Your task to perform on an android device: Go to calendar. Show me events next week Image 0: 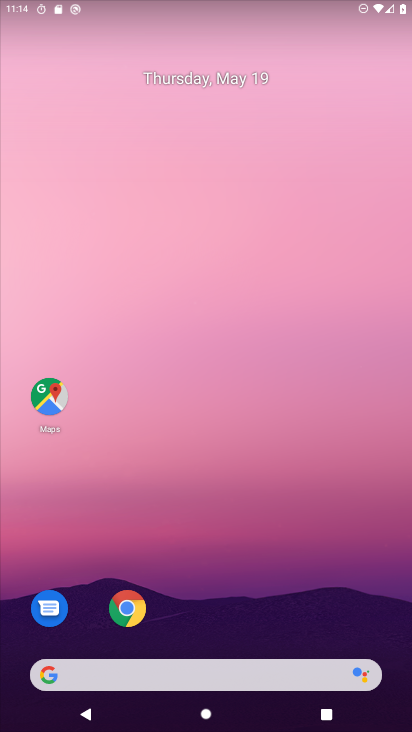
Step 0: drag from (400, 663) to (383, 379)
Your task to perform on an android device: Go to calendar. Show me events next week Image 1: 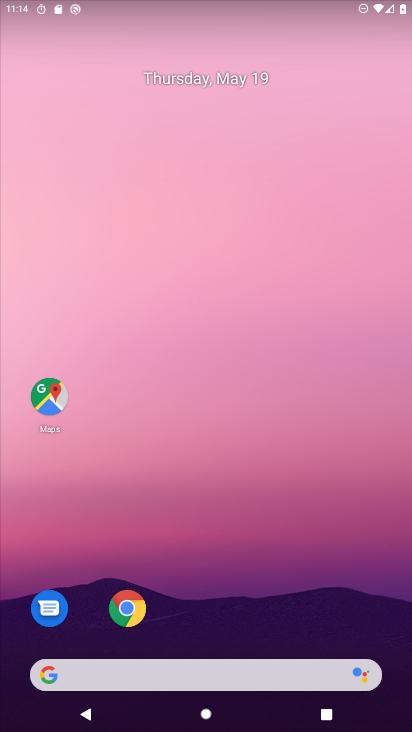
Step 1: drag from (400, 698) to (375, 1)
Your task to perform on an android device: Go to calendar. Show me events next week Image 2: 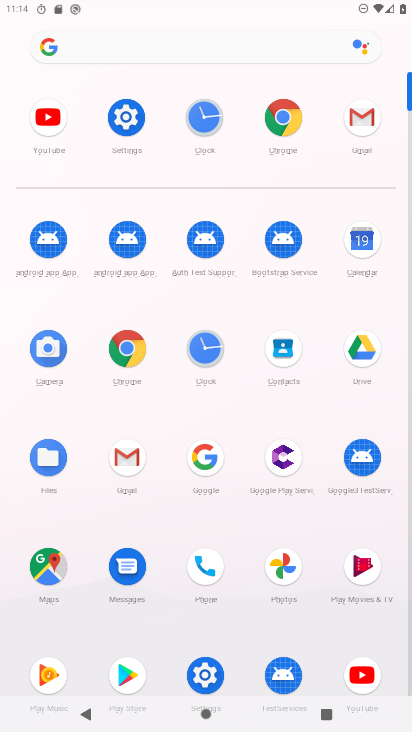
Step 2: click (353, 242)
Your task to perform on an android device: Go to calendar. Show me events next week Image 3: 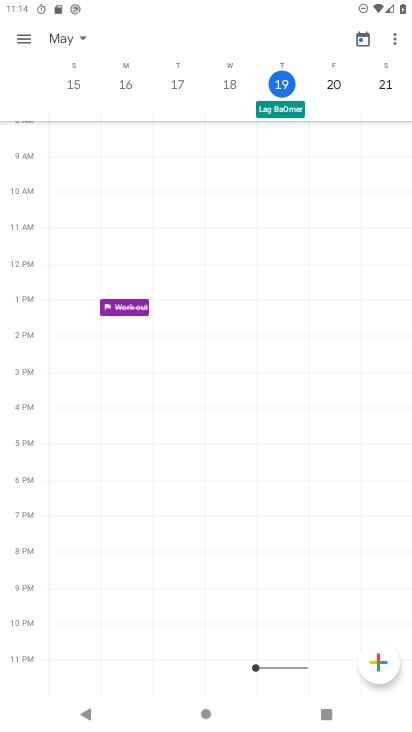
Step 3: click (84, 39)
Your task to perform on an android device: Go to calendar. Show me events next week Image 4: 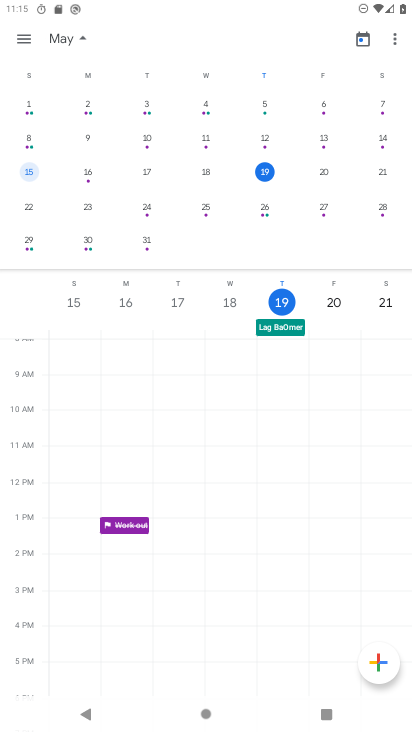
Step 4: click (263, 202)
Your task to perform on an android device: Go to calendar. Show me events next week Image 5: 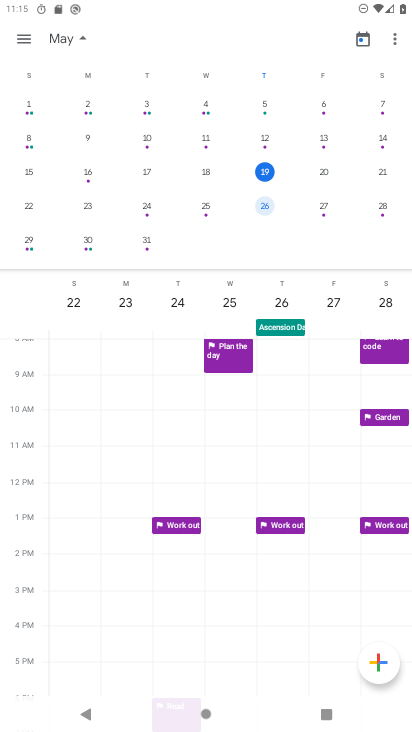
Step 5: click (25, 40)
Your task to perform on an android device: Go to calendar. Show me events next week Image 6: 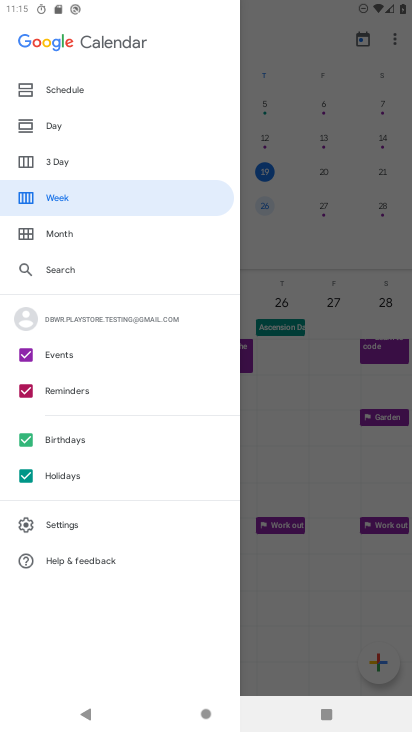
Step 6: click (55, 190)
Your task to perform on an android device: Go to calendar. Show me events next week Image 7: 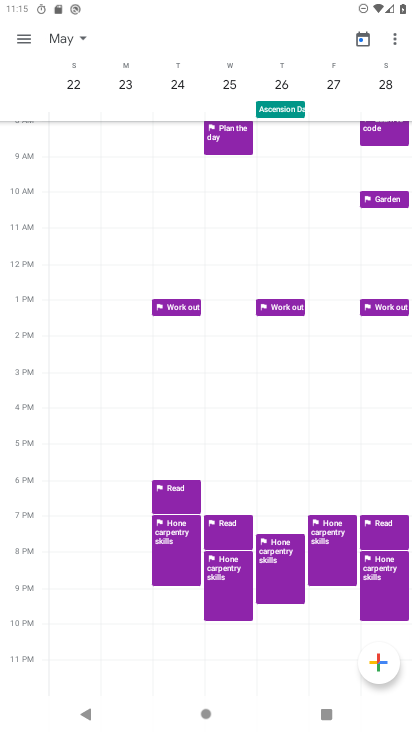
Step 7: task complete